Your task to perform on an android device: change the clock display to show seconds Image 0: 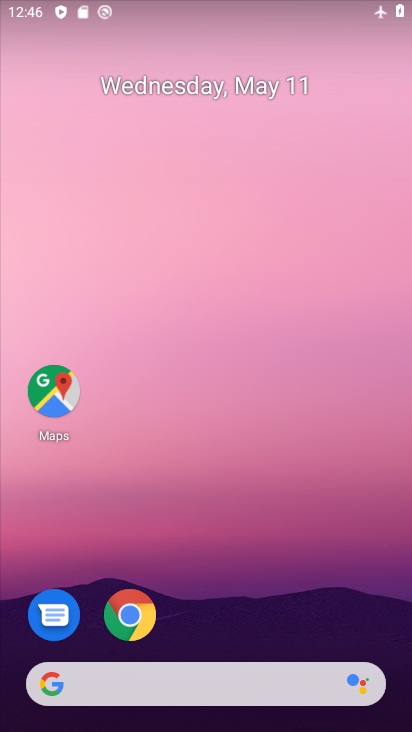
Step 0: drag from (326, 618) to (328, 182)
Your task to perform on an android device: change the clock display to show seconds Image 1: 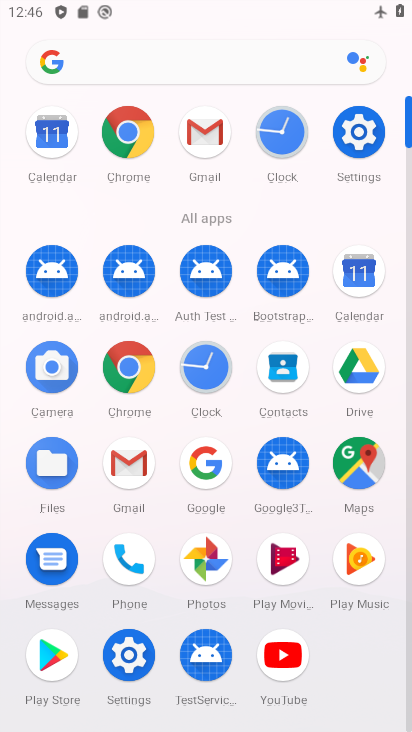
Step 1: click (204, 372)
Your task to perform on an android device: change the clock display to show seconds Image 2: 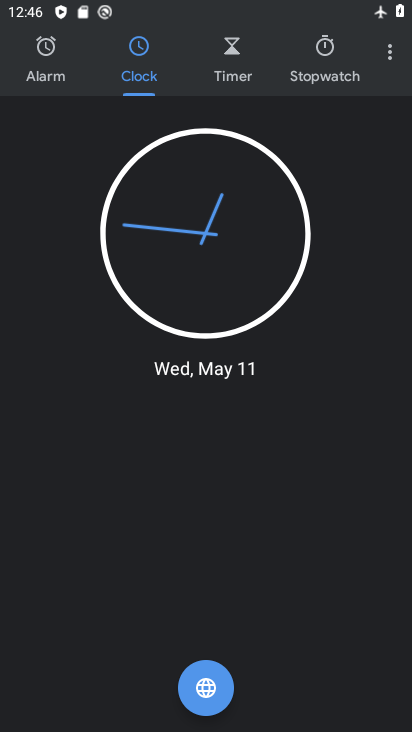
Step 2: drag from (384, 59) to (319, 94)
Your task to perform on an android device: change the clock display to show seconds Image 3: 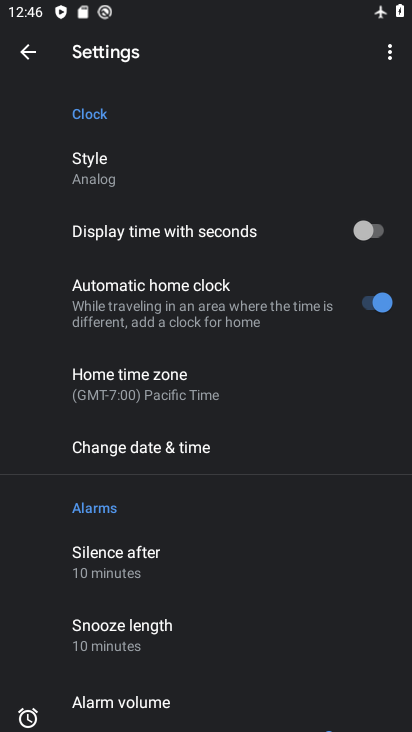
Step 3: drag from (235, 556) to (247, 417)
Your task to perform on an android device: change the clock display to show seconds Image 4: 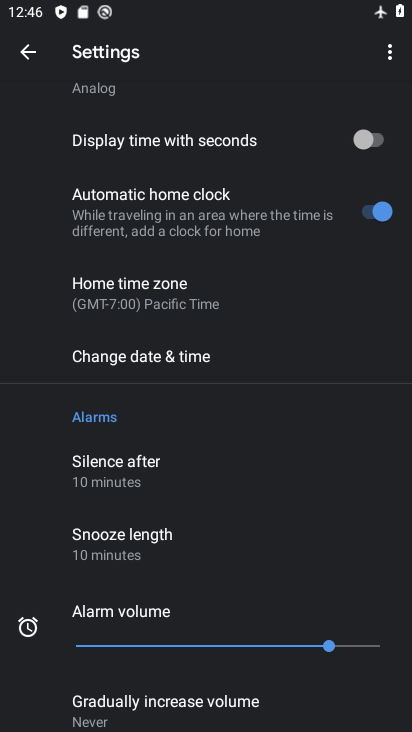
Step 4: click (371, 132)
Your task to perform on an android device: change the clock display to show seconds Image 5: 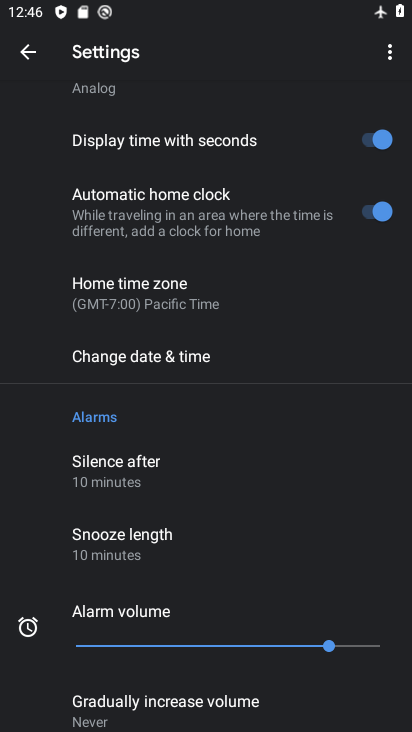
Step 5: task complete